Your task to perform on an android device: find snoozed emails in the gmail app Image 0: 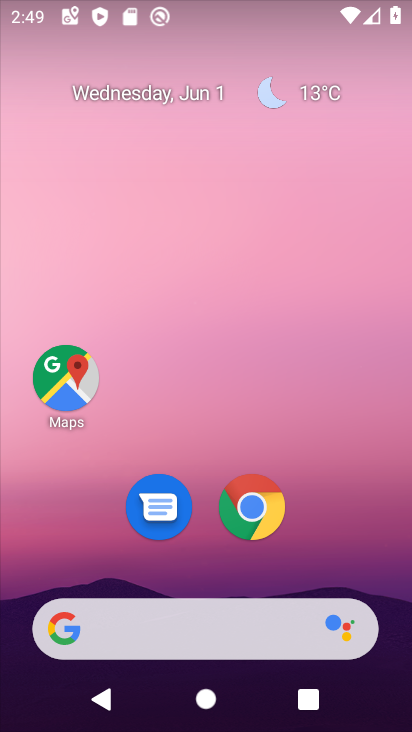
Step 0: drag from (315, 549) to (191, 227)
Your task to perform on an android device: find snoozed emails in the gmail app Image 1: 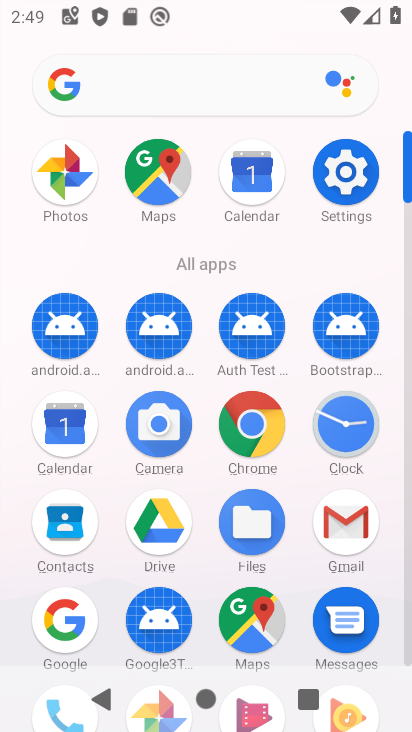
Step 1: click (349, 527)
Your task to perform on an android device: find snoozed emails in the gmail app Image 2: 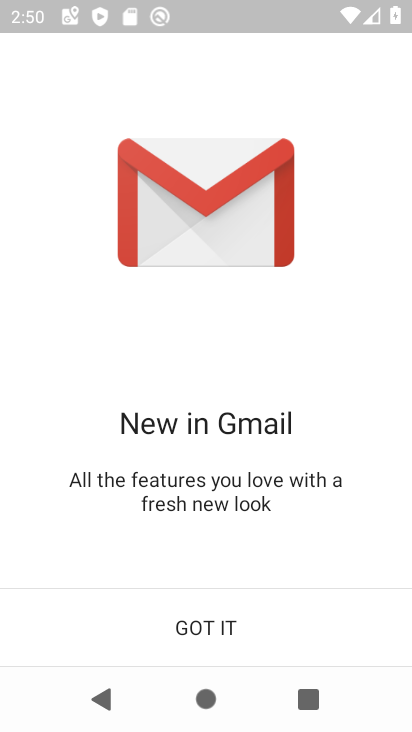
Step 2: click (226, 621)
Your task to perform on an android device: find snoozed emails in the gmail app Image 3: 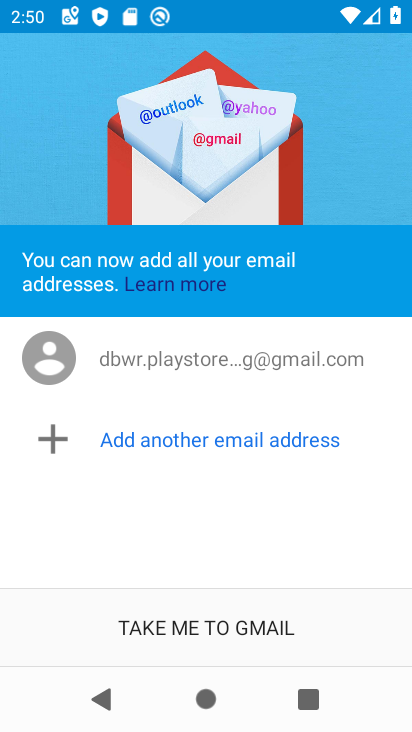
Step 3: click (226, 621)
Your task to perform on an android device: find snoozed emails in the gmail app Image 4: 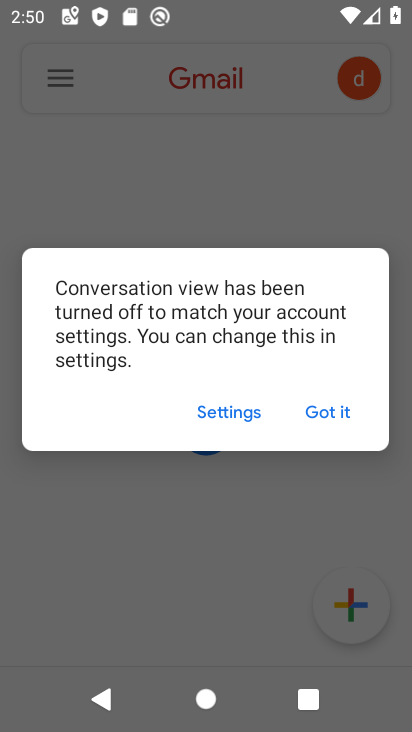
Step 4: click (332, 415)
Your task to perform on an android device: find snoozed emails in the gmail app Image 5: 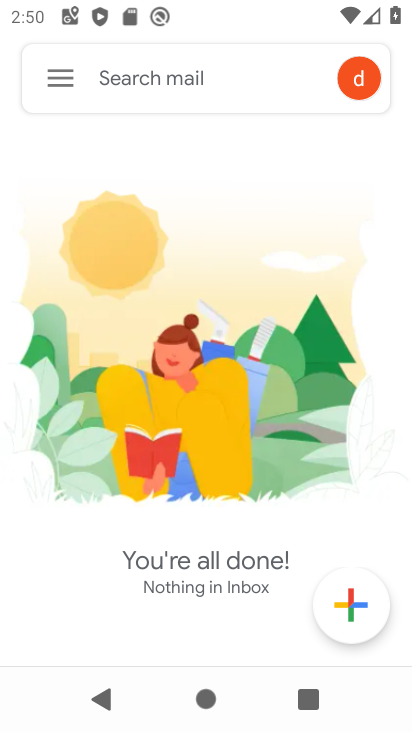
Step 5: click (68, 75)
Your task to perform on an android device: find snoozed emails in the gmail app Image 6: 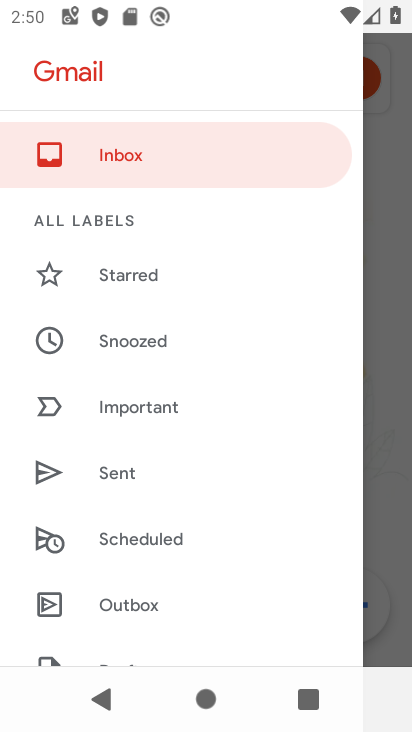
Step 6: click (135, 342)
Your task to perform on an android device: find snoozed emails in the gmail app Image 7: 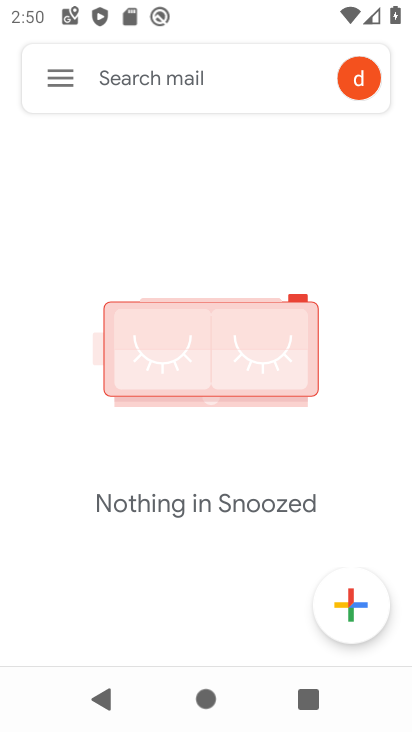
Step 7: task complete